Your task to perform on an android device: open chrome privacy settings Image 0: 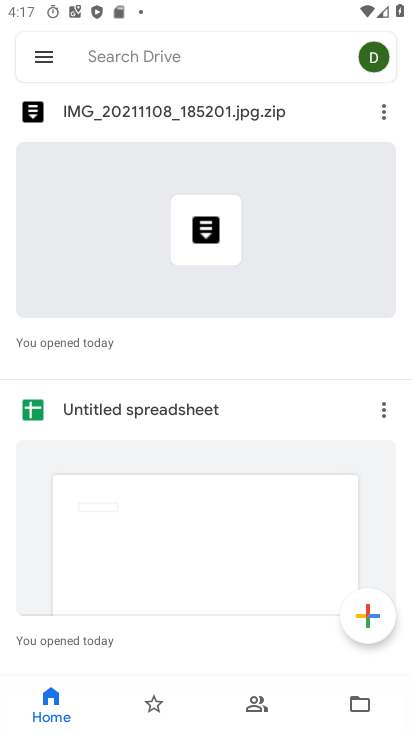
Step 0: press home button
Your task to perform on an android device: open chrome privacy settings Image 1: 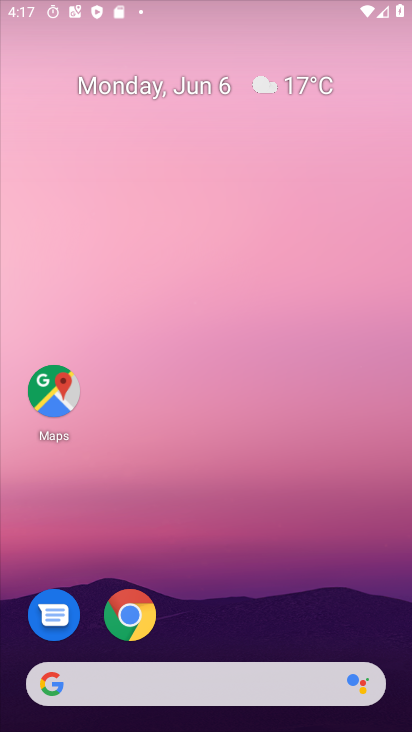
Step 1: drag from (251, 678) to (319, 1)
Your task to perform on an android device: open chrome privacy settings Image 2: 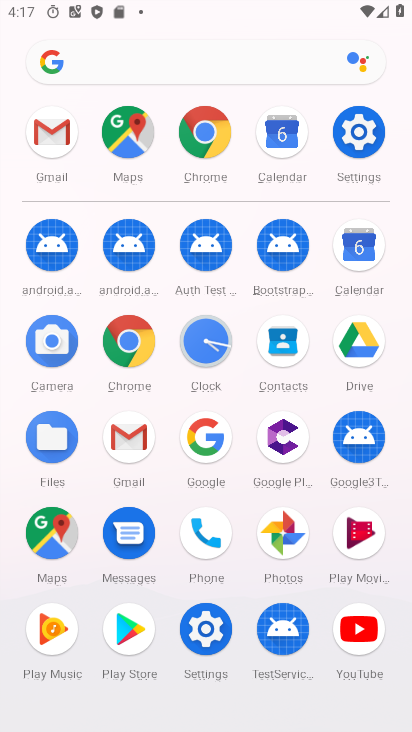
Step 2: click (365, 126)
Your task to perform on an android device: open chrome privacy settings Image 3: 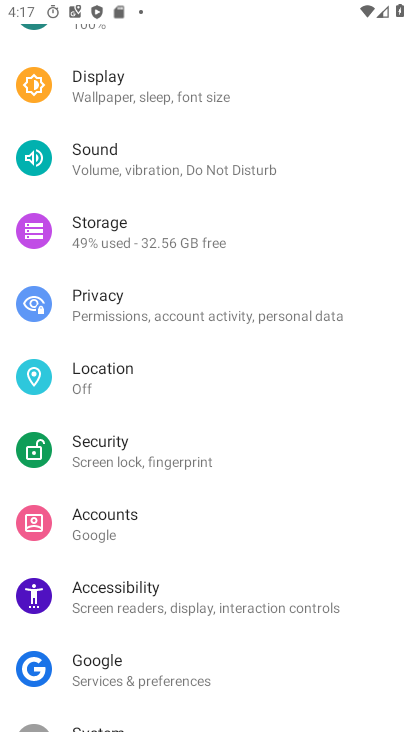
Step 3: press home button
Your task to perform on an android device: open chrome privacy settings Image 4: 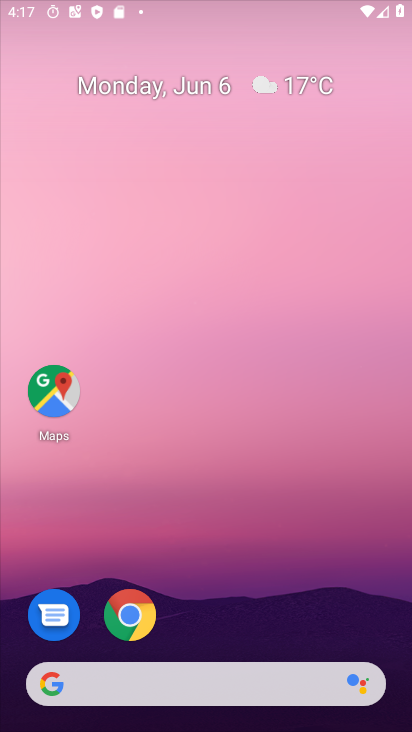
Step 4: drag from (256, 684) to (273, 64)
Your task to perform on an android device: open chrome privacy settings Image 5: 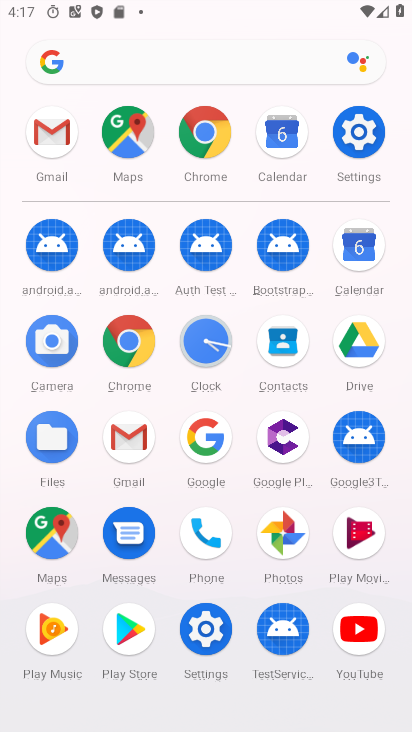
Step 5: click (145, 336)
Your task to perform on an android device: open chrome privacy settings Image 6: 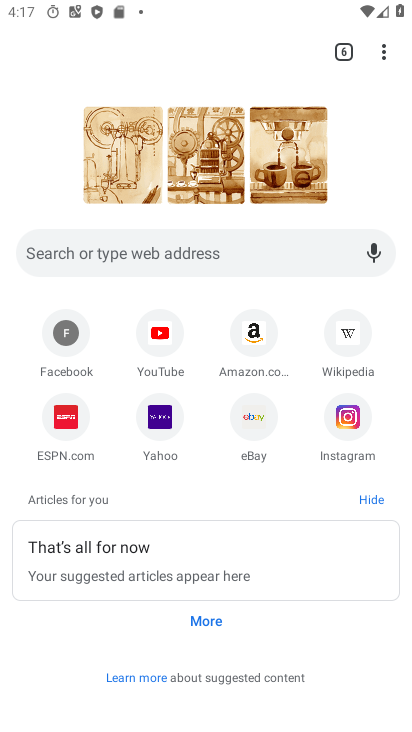
Step 6: drag from (380, 52) to (240, 436)
Your task to perform on an android device: open chrome privacy settings Image 7: 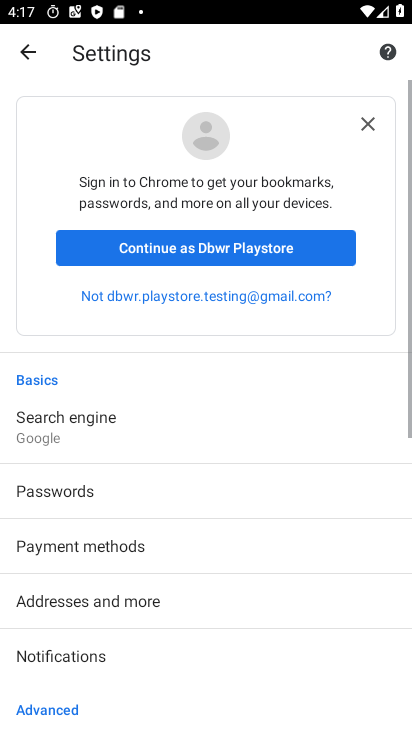
Step 7: drag from (195, 547) to (264, 117)
Your task to perform on an android device: open chrome privacy settings Image 8: 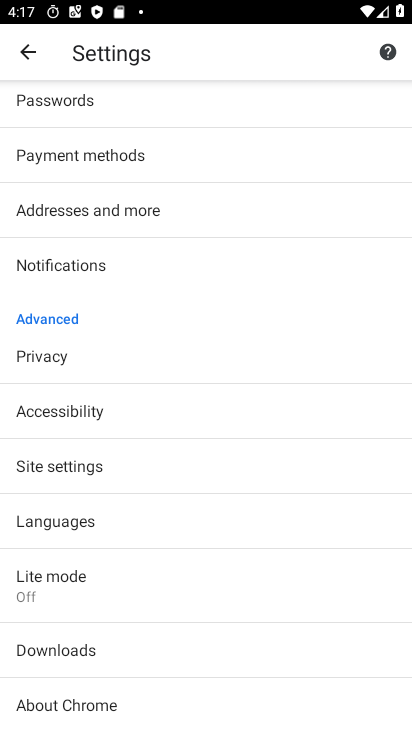
Step 8: click (74, 366)
Your task to perform on an android device: open chrome privacy settings Image 9: 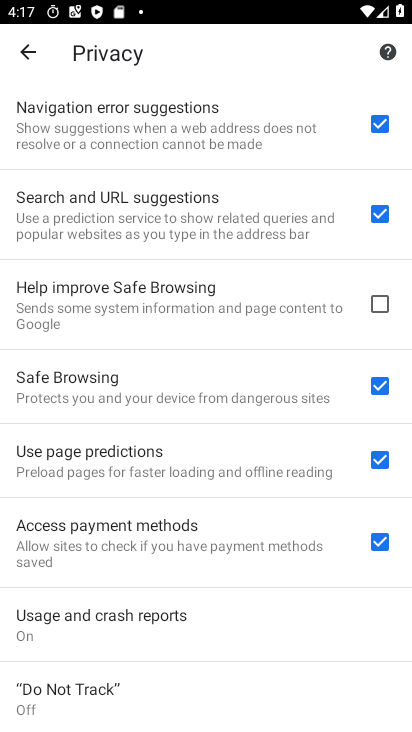
Step 9: task complete